Your task to perform on an android device: toggle improve location accuracy Image 0: 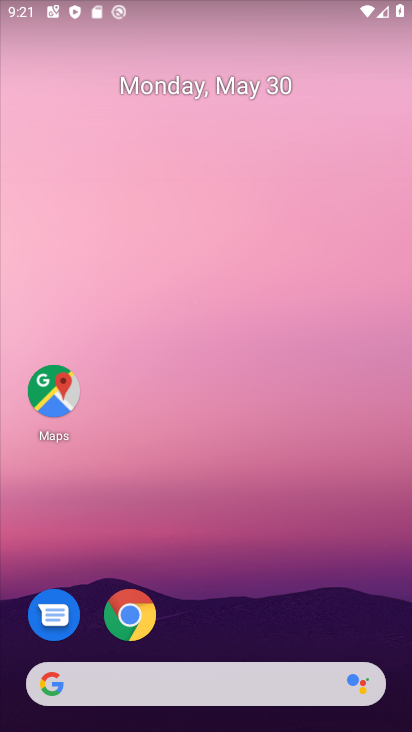
Step 0: drag from (307, 544) to (262, 16)
Your task to perform on an android device: toggle improve location accuracy Image 1: 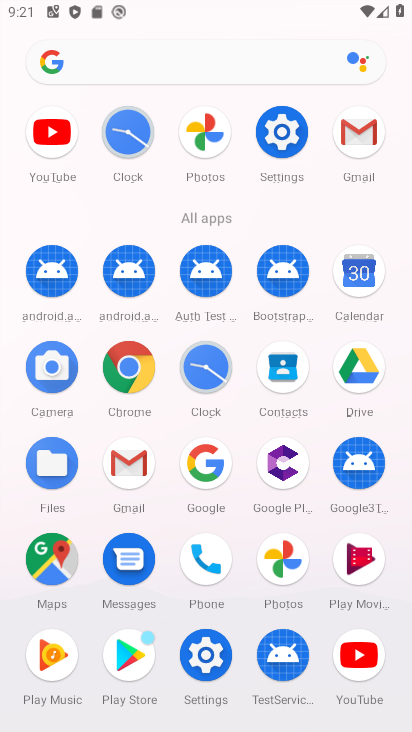
Step 1: click (287, 139)
Your task to perform on an android device: toggle improve location accuracy Image 2: 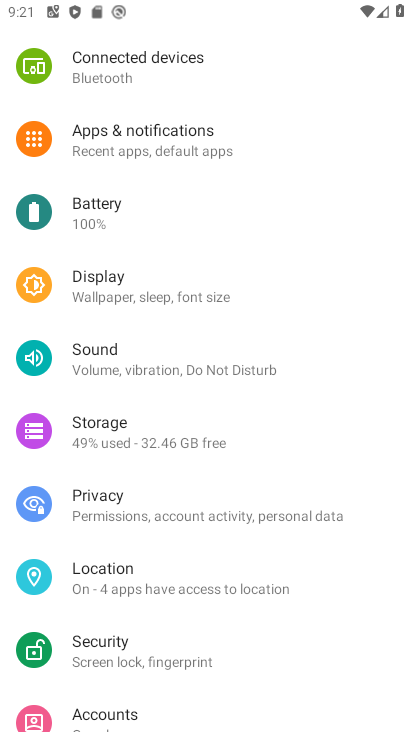
Step 2: drag from (231, 547) to (257, 21)
Your task to perform on an android device: toggle improve location accuracy Image 3: 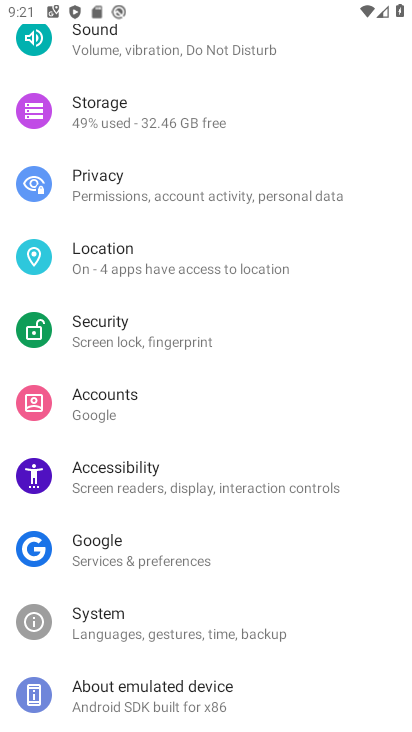
Step 3: click (150, 262)
Your task to perform on an android device: toggle improve location accuracy Image 4: 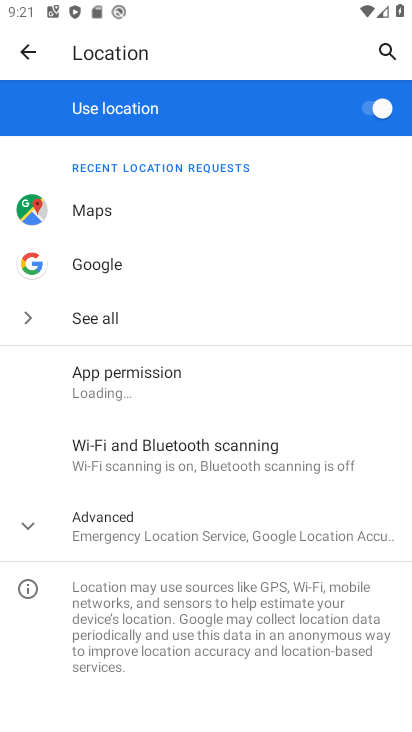
Step 4: click (164, 525)
Your task to perform on an android device: toggle improve location accuracy Image 5: 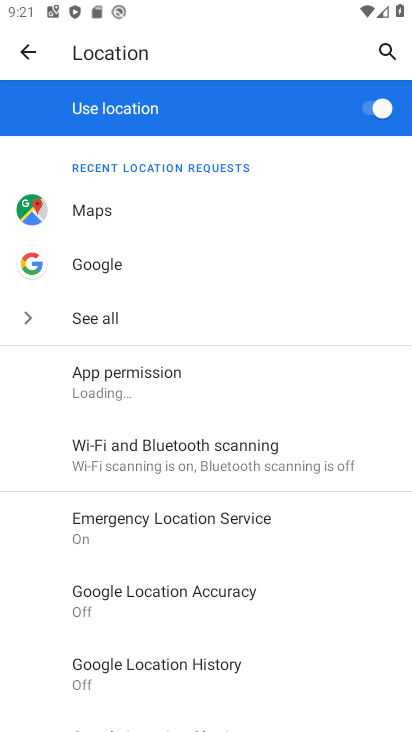
Step 5: click (206, 584)
Your task to perform on an android device: toggle improve location accuracy Image 6: 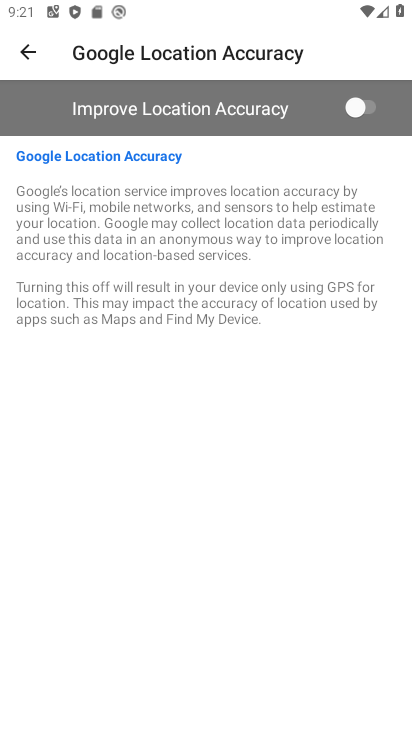
Step 6: click (375, 100)
Your task to perform on an android device: toggle improve location accuracy Image 7: 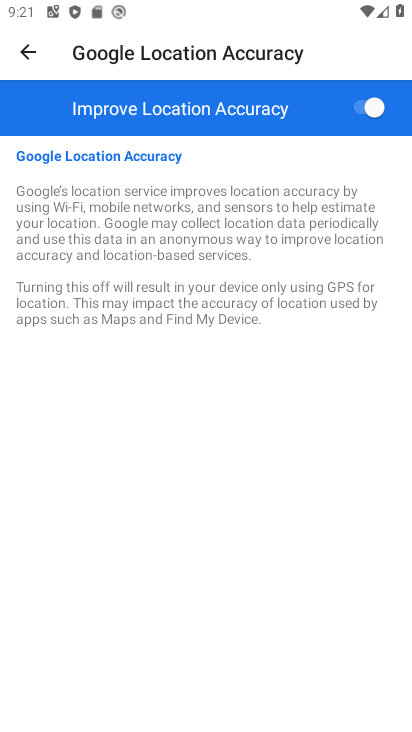
Step 7: task complete